Your task to perform on an android device: Do I have any events today? Image 0: 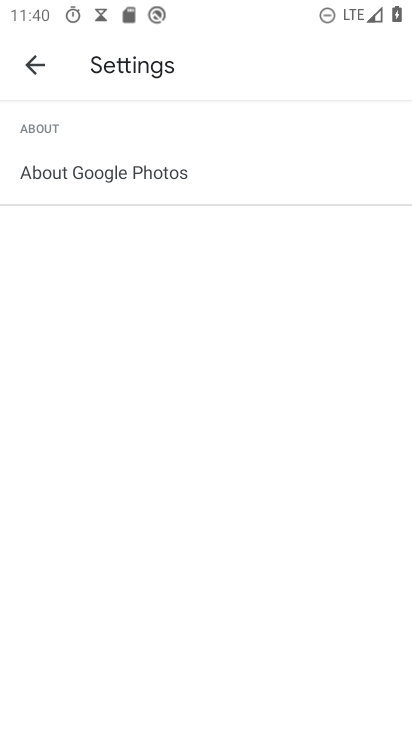
Step 0: press home button
Your task to perform on an android device: Do I have any events today? Image 1: 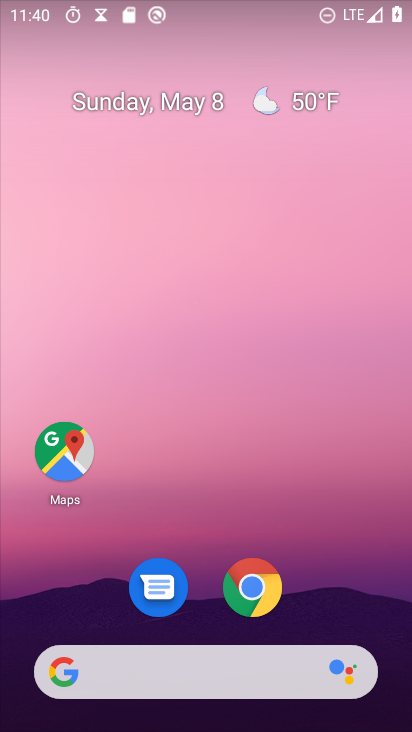
Step 1: drag from (316, 529) to (121, 148)
Your task to perform on an android device: Do I have any events today? Image 2: 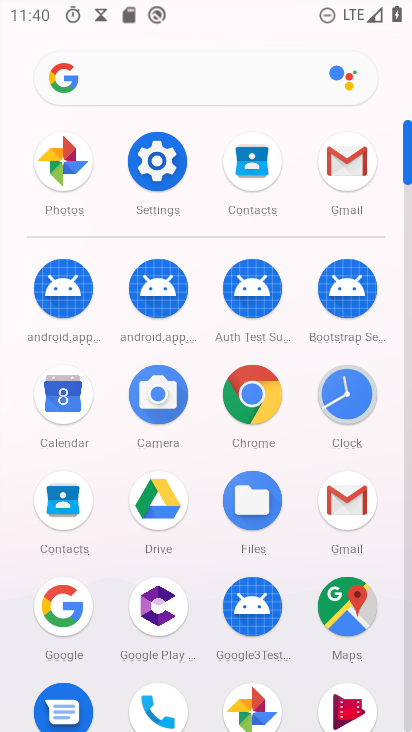
Step 2: click (60, 393)
Your task to perform on an android device: Do I have any events today? Image 3: 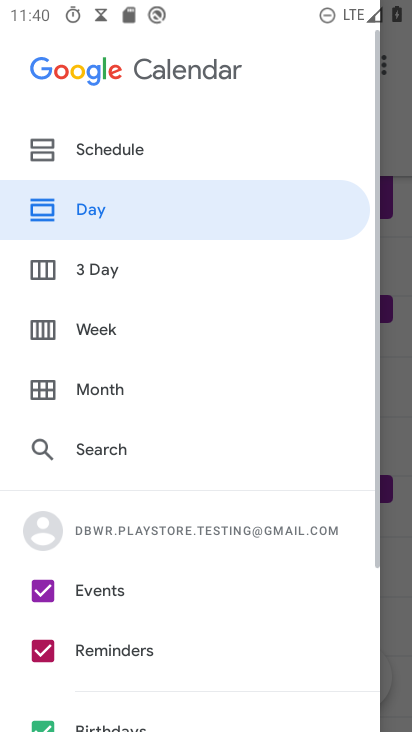
Step 3: click (109, 143)
Your task to perform on an android device: Do I have any events today? Image 4: 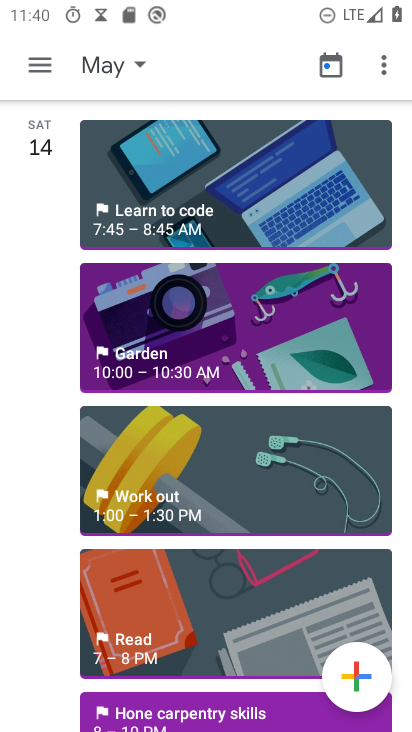
Step 4: click (120, 63)
Your task to perform on an android device: Do I have any events today? Image 5: 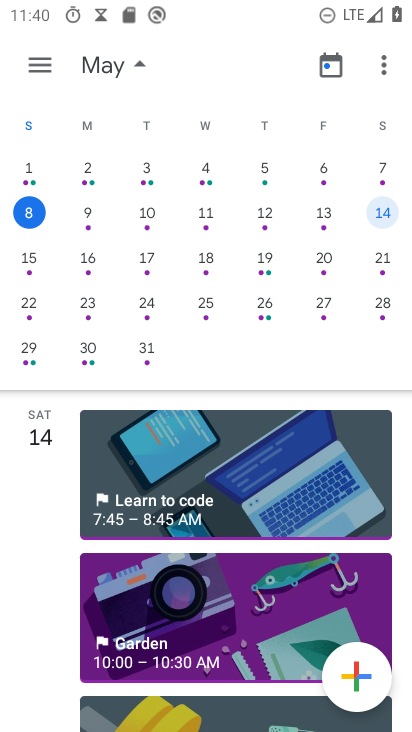
Step 5: click (19, 204)
Your task to perform on an android device: Do I have any events today? Image 6: 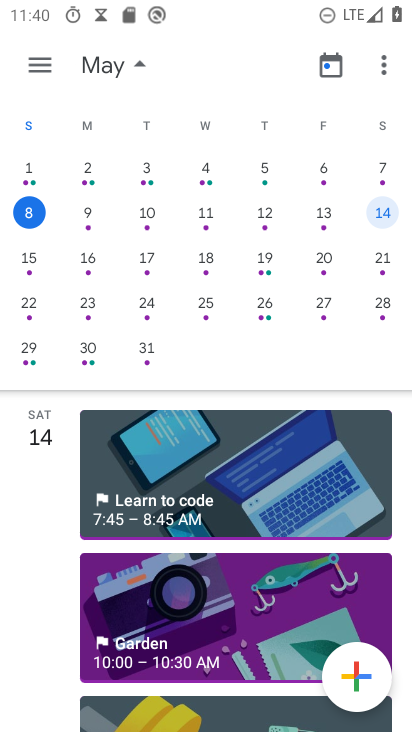
Step 6: click (28, 214)
Your task to perform on an android device: Do I have any events today? Image 7: 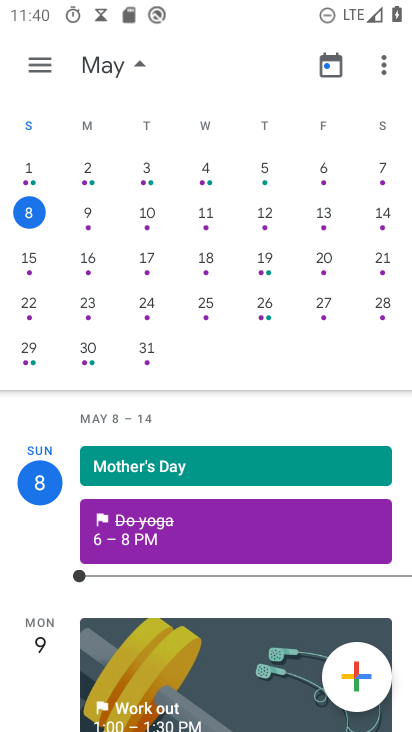
Step 7: task complete